Your task to perform on an android device: Open eBay Image 0: 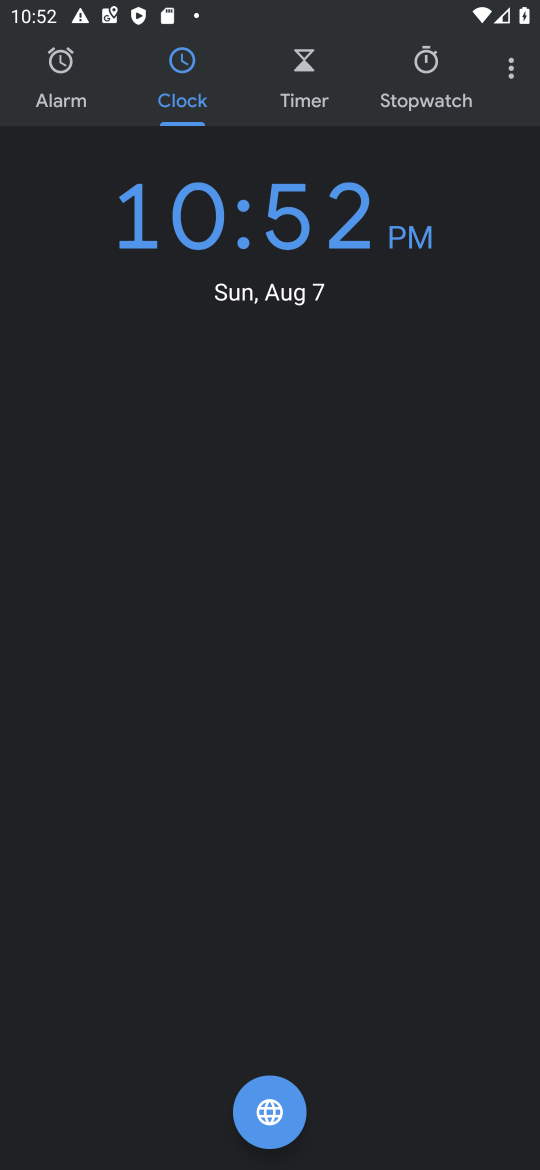
Step 0: press home button
Your task to perform on an android device: Open eBay Image 1: 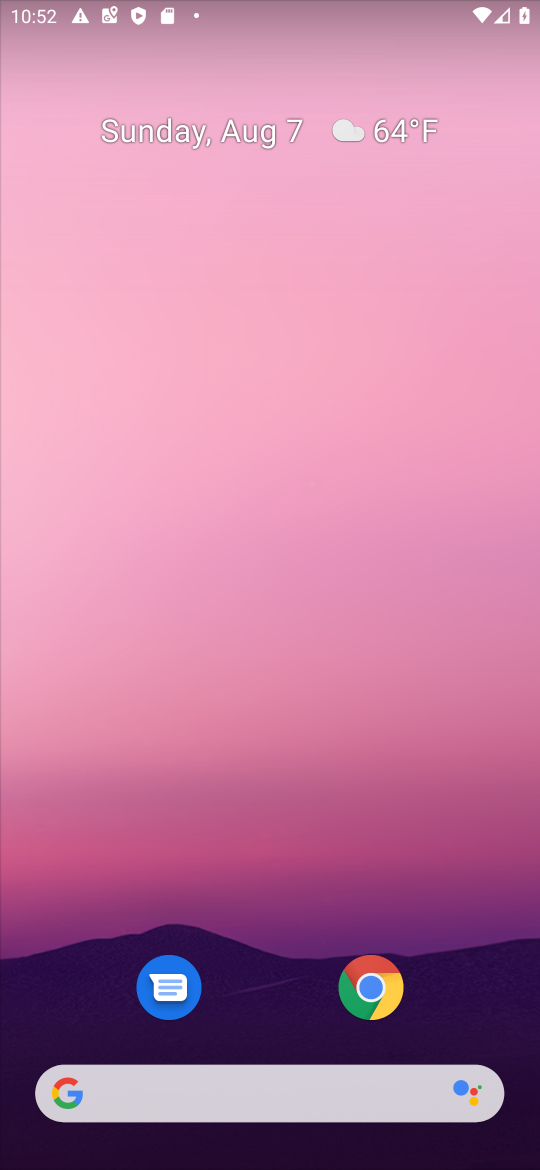
Step 1: click (360, 970)
Your task to perform on an android device: Open eBay Image 2: 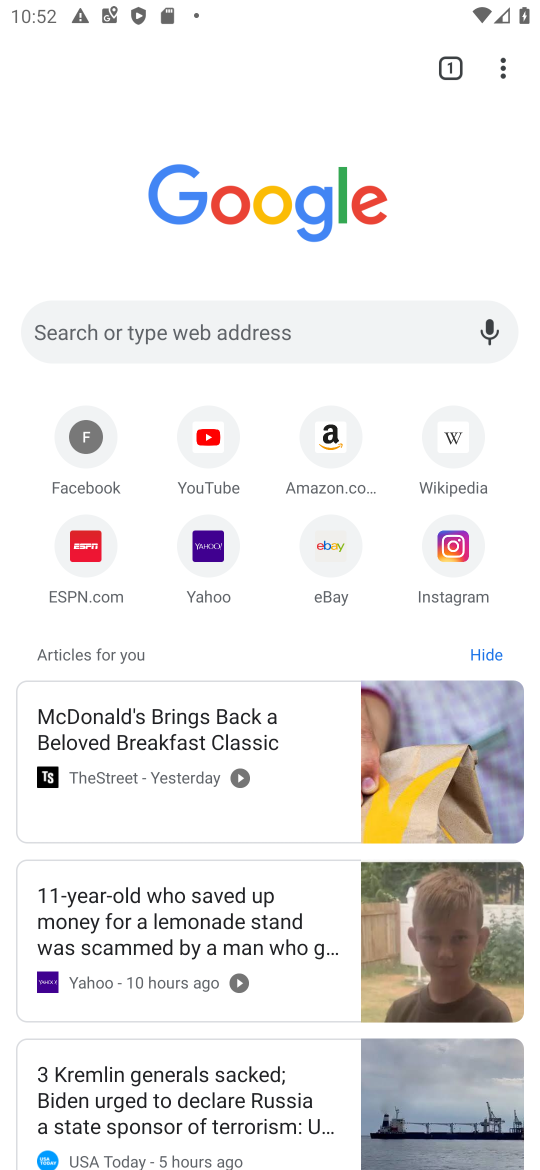
Step 2: click (340, 542)
Your task to perform on an android device: Open eBay Image 3: 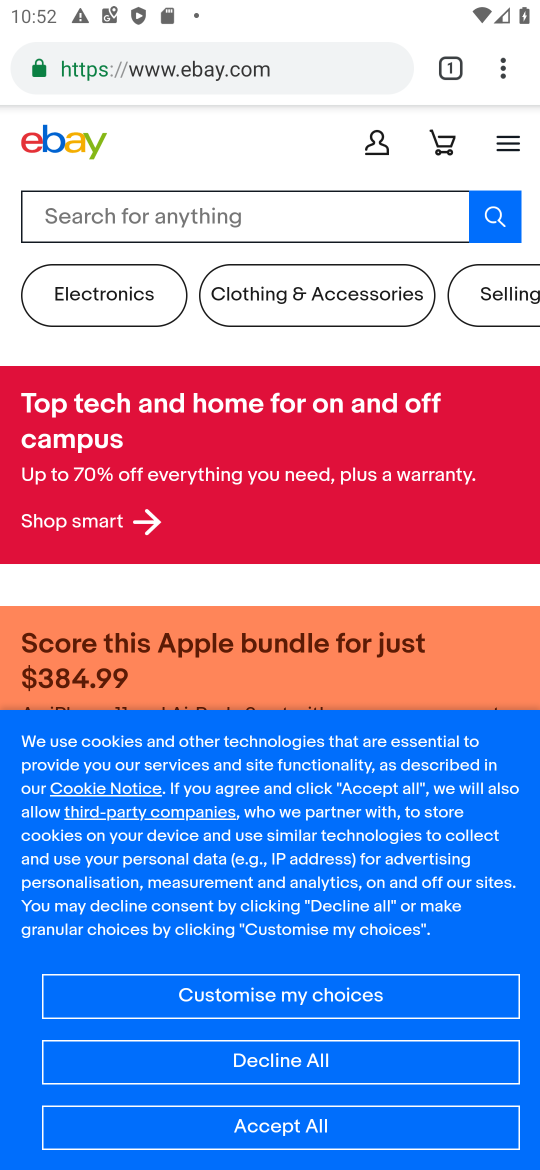
Step 3: task complete